Your task to perform on an android device: change the clock display to show seconds Image 0: 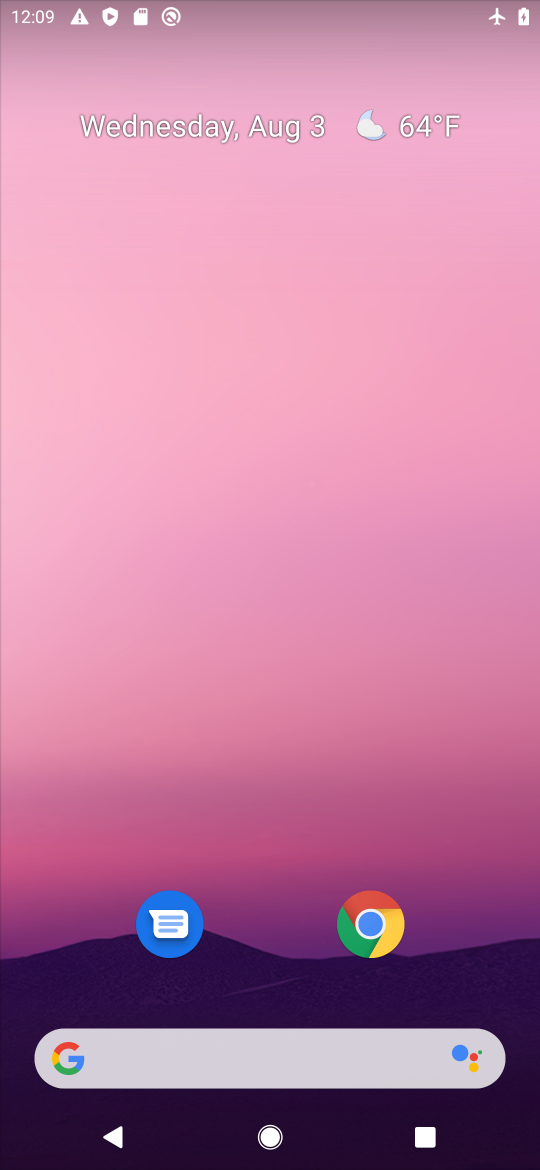
Step 0: drag from (219, 887) to (376, 108)
Your task to perform on an android device: change the clock display to show seconds Image 1: 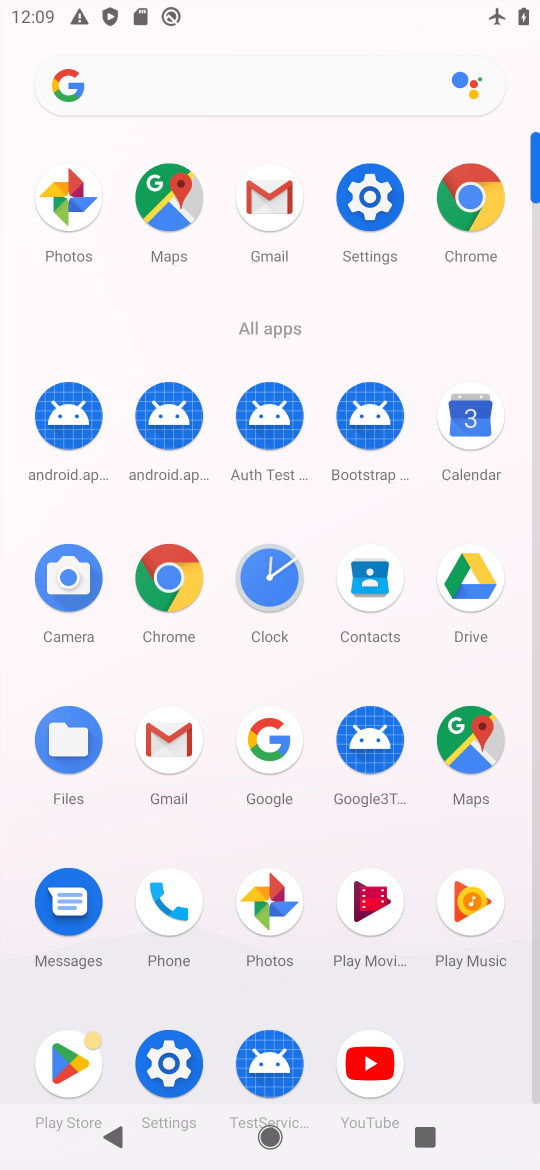
Step 1: click (279, 591)
Your task to perform on an android device: change the clock display to show seconds Image 2: 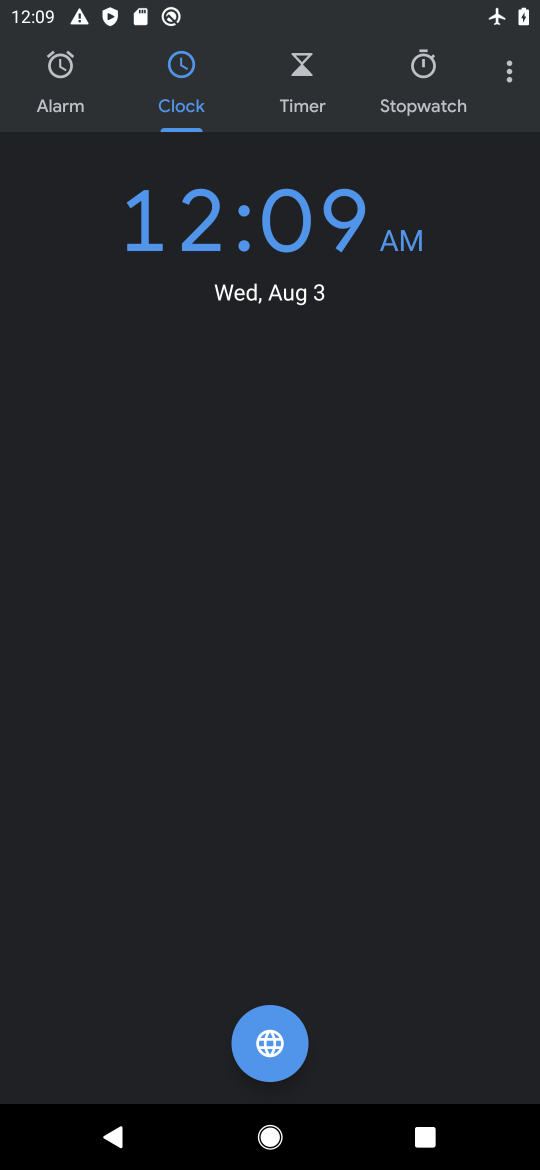
Step 2: click (505, 75)
Your task to perform on an android device: change the clock display to show seconds Image 3: 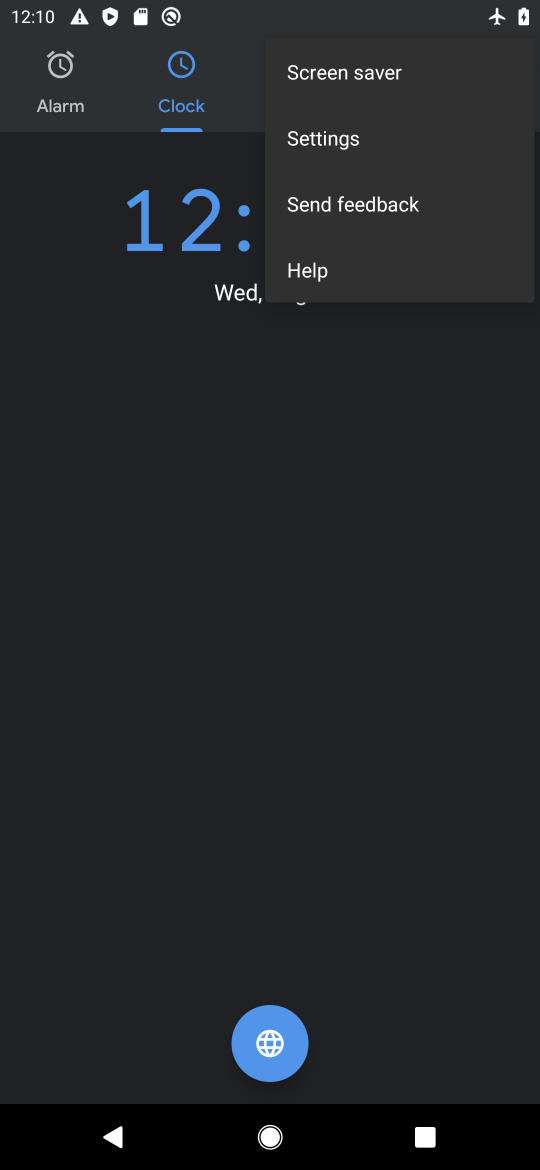
Step 3: click (327, 130)
Your task to perform on an android device: change the clock display to show seconds Image 4: 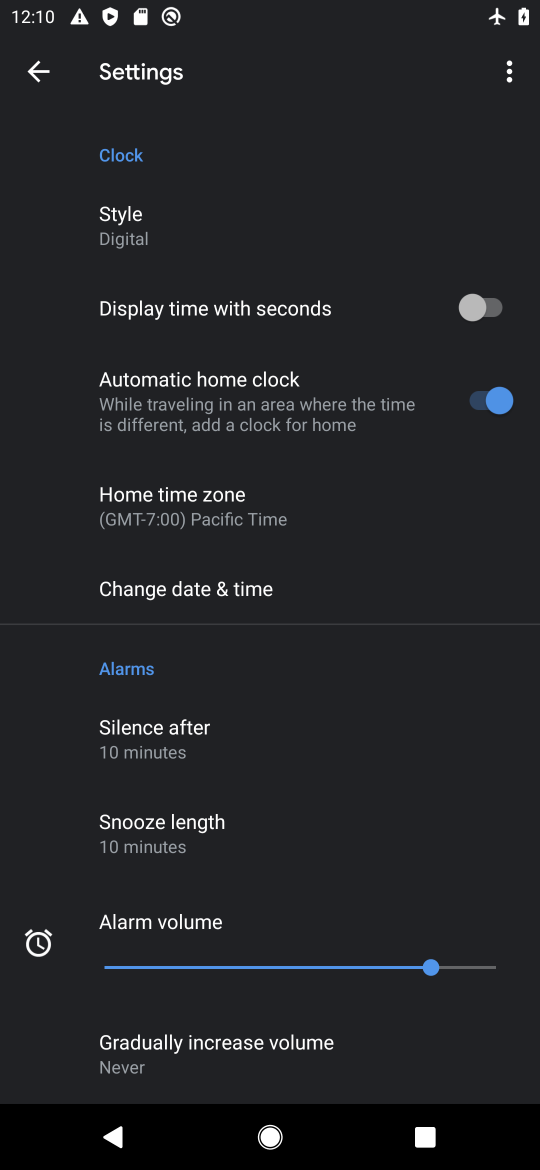
Step 4: drag from (240, 786) to (317, 161)
Your task to perform on an android device: change the clock display to show seconds Image 5: 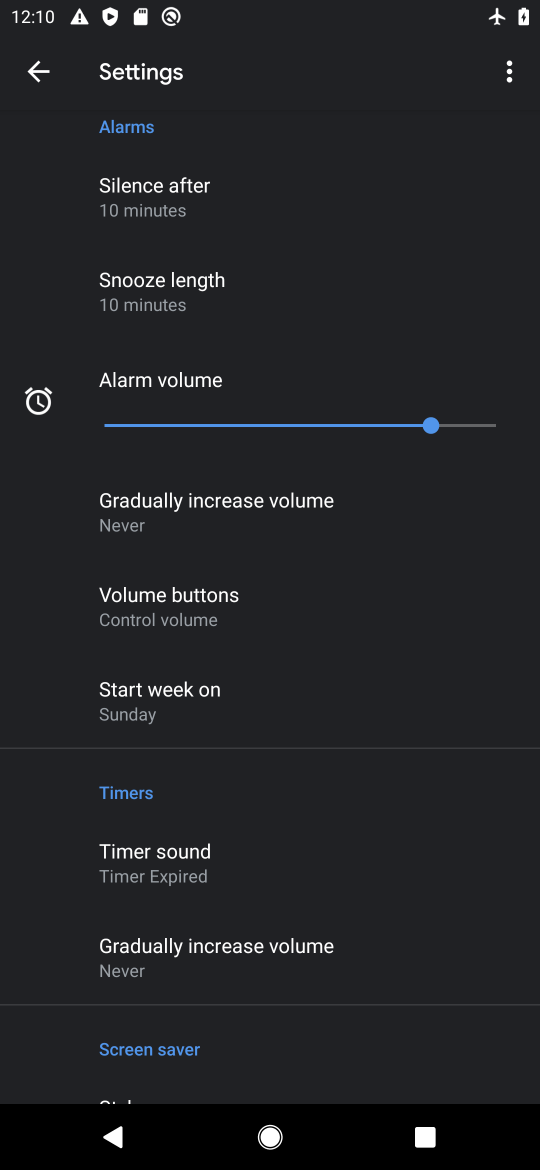
Step 5: drag from (320, 139) to (316, 913)
Your task to perform on an android device: change the clock display to show seconds Image 6: 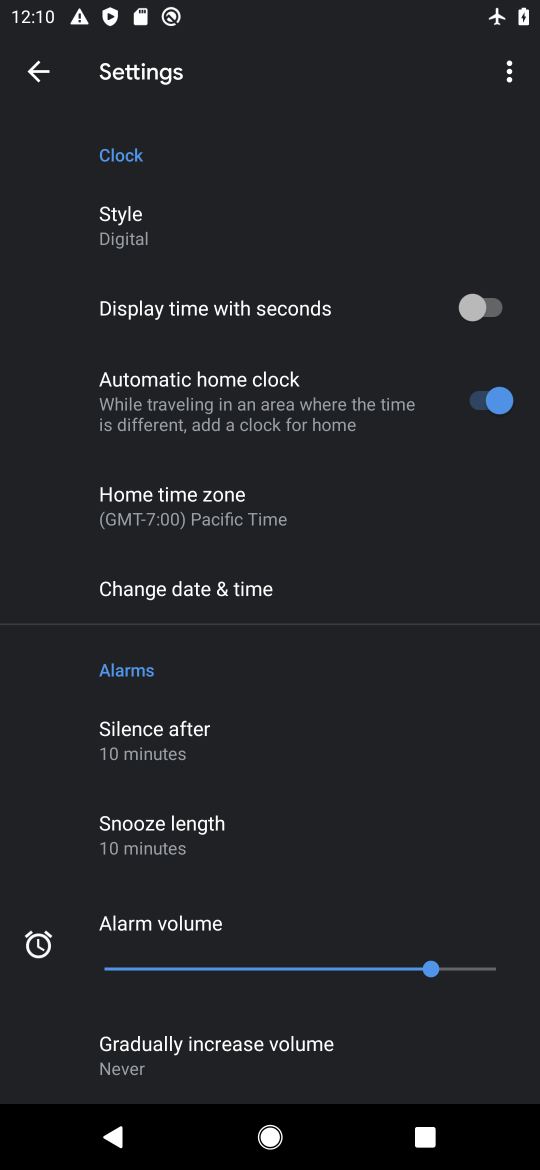
Step 6: click (477, 309)
Your task to perform on an android device: change the clock display to show seconds Image 7: 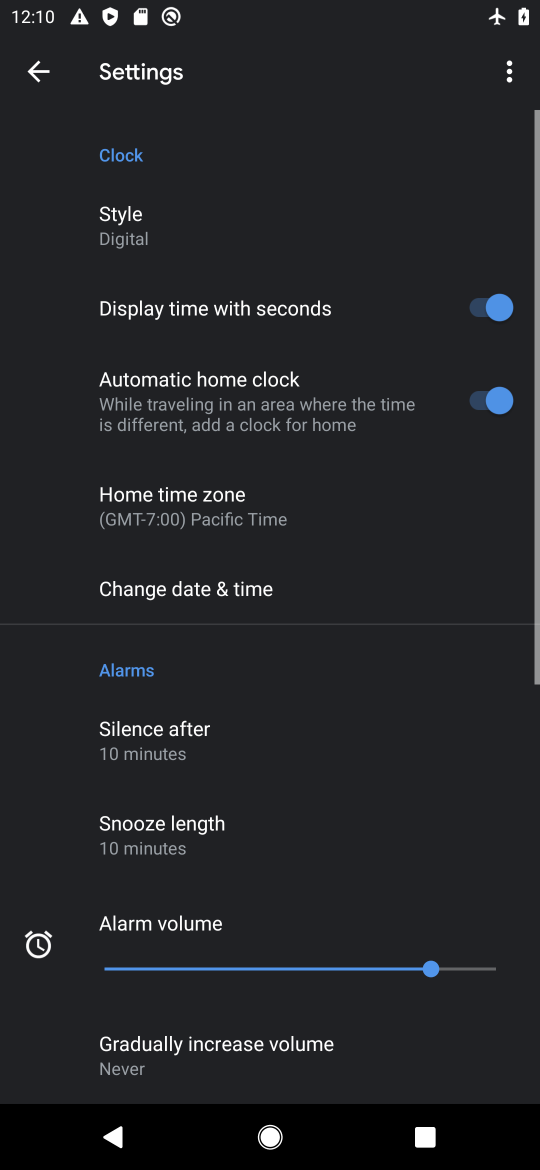
Step 7: click (180, 211)
Your task to perform on an android device: change the clock display to show seconds Image 8: 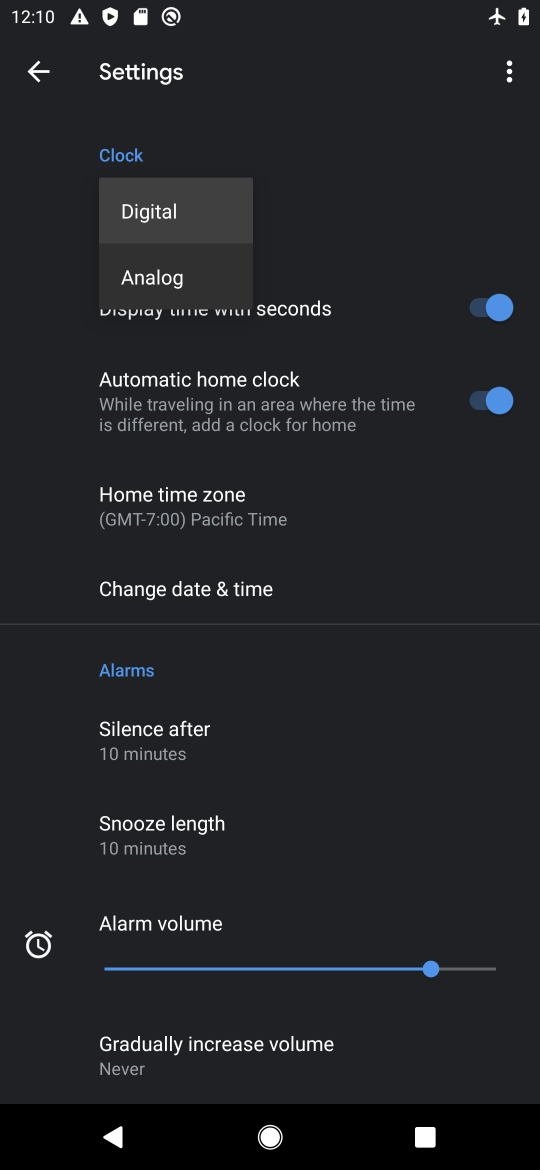
Step 8: click (320, 174)
Your task to perform on an android device: change the clock display to show seconds Image 9: 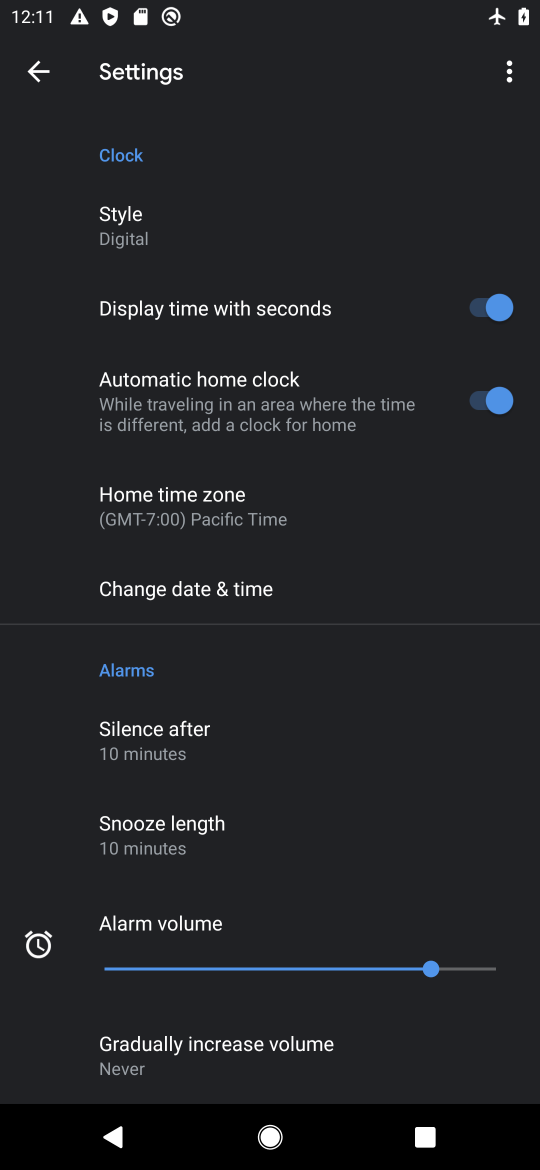
Step 9: click (170, 231)
Your task to perform on an android device: change the clock display to show seconds Image 10: 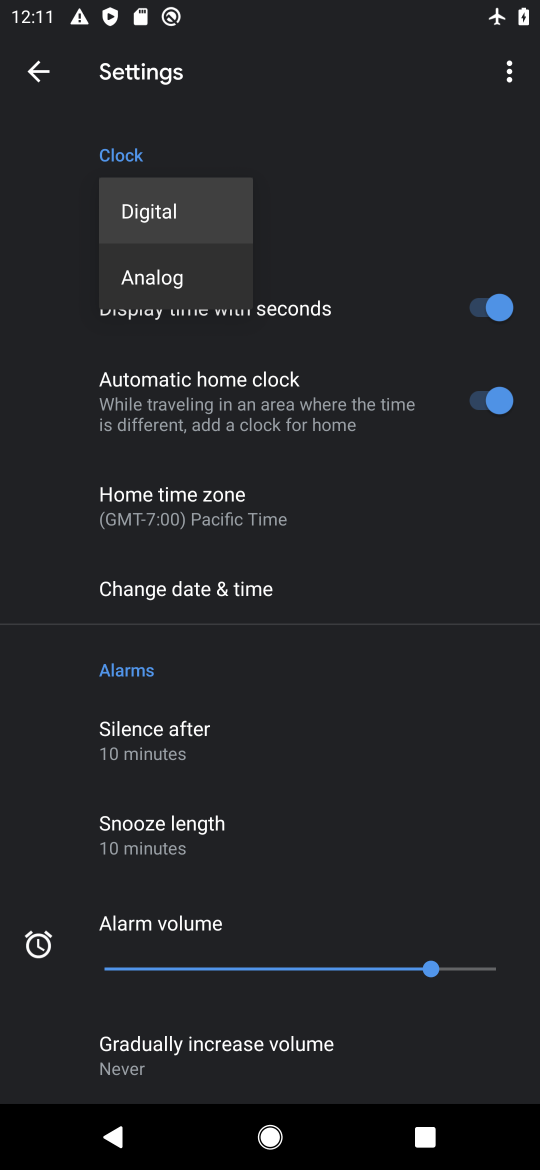
Step 10: click (182, 214)
Your task to perform on an android device: change the clock display to show seconds Image 11: 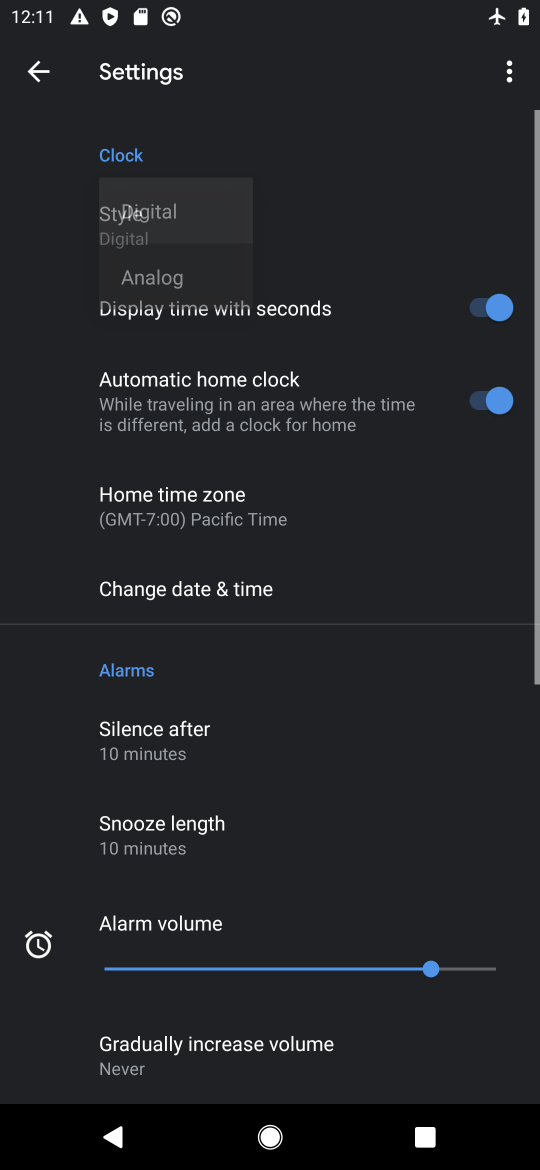
Step 11: task complete